Your task to perform on an android device: turn off sleep mode Image 0: 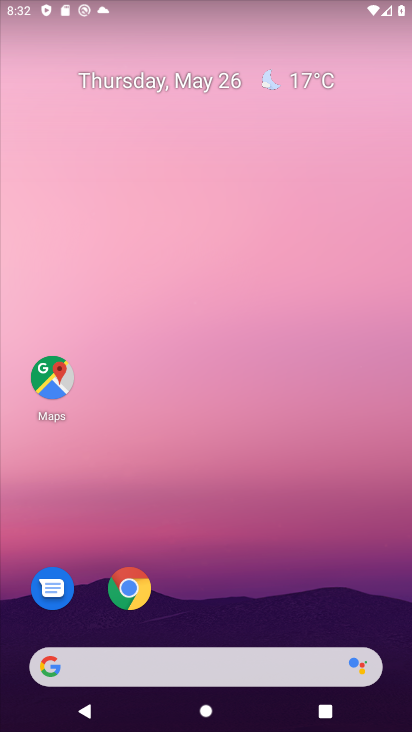
Step 0: drag from (403, 616) to (299, 76)
Your task to perform on an android device: turn off sleep mode Image 1: 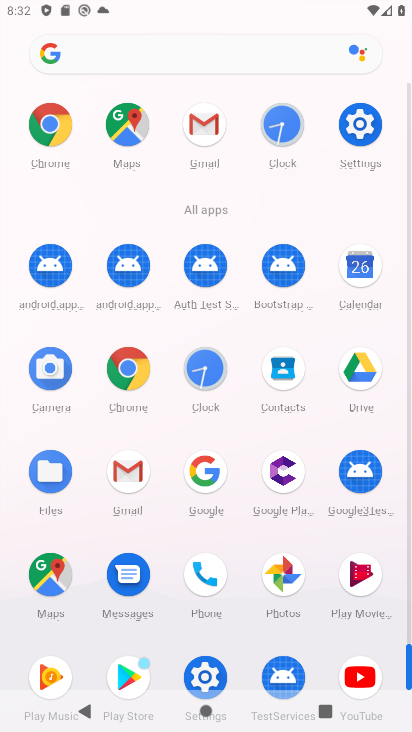
Step 1: click (206, 673)
Your task to perform on an android device: turn off sleep mode Image 2: 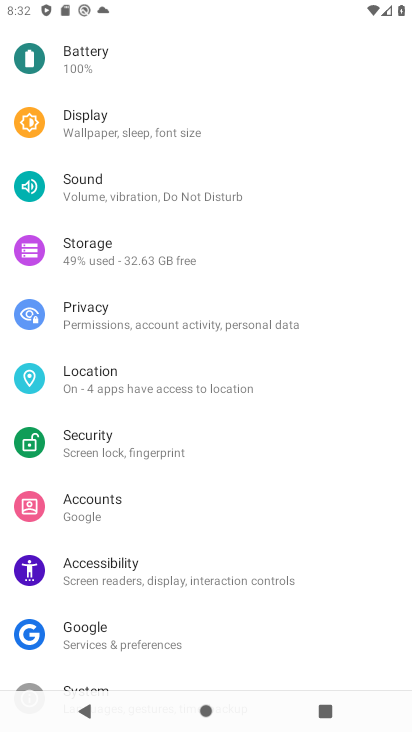
Step 2: drag from (265, 42) to (250, 310)
Your task to perform on an android device: turn off sleep mode Image 3: 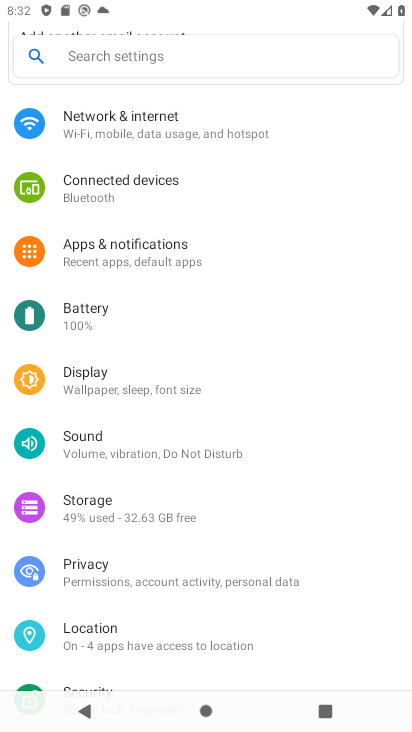
Step 3: click (96, 391)
Your task to perform on an android device: turn off sleep mode Image 4: 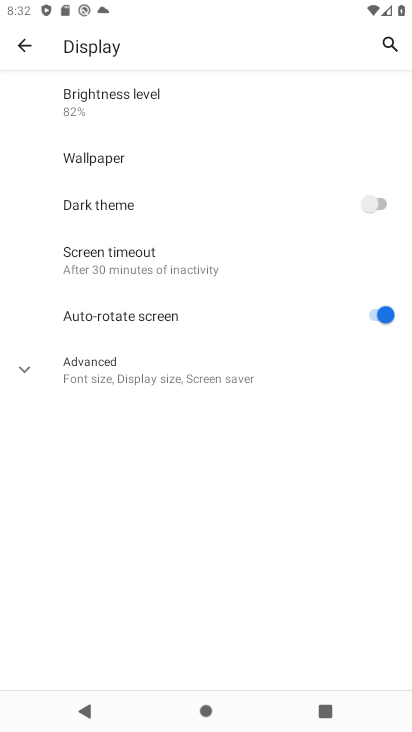
Step 4: click (24, 372)
Your task to perform on an android device: turn off sleep mode Image 5: 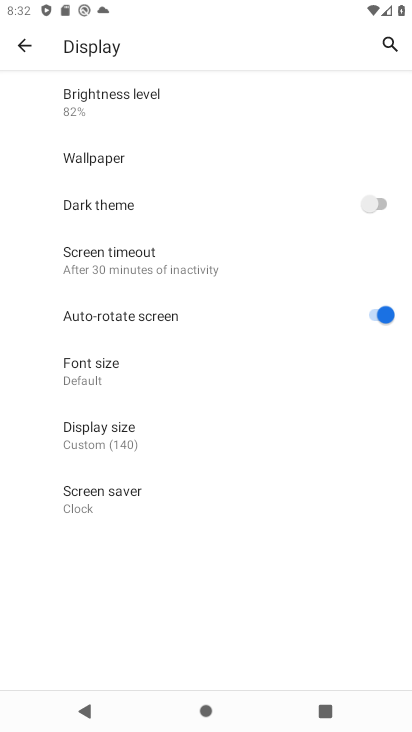
Step 5: task complete